Your task to perform on an android device: toggle data saver in the chrome app Image 0: 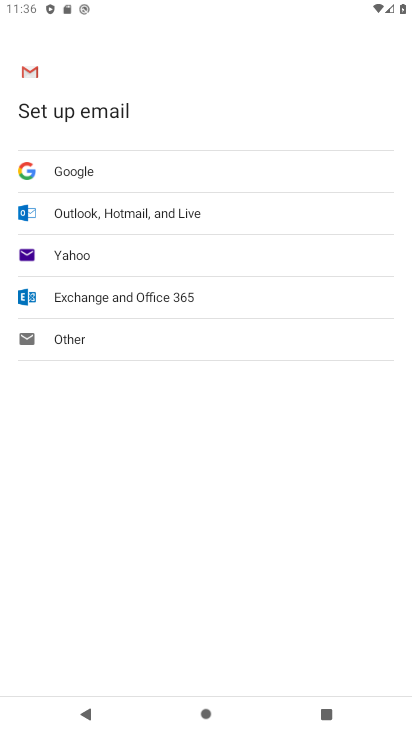
Step 0: press home button
Your task to perform on an android device: toggle data saver in the chrome app Image 1: 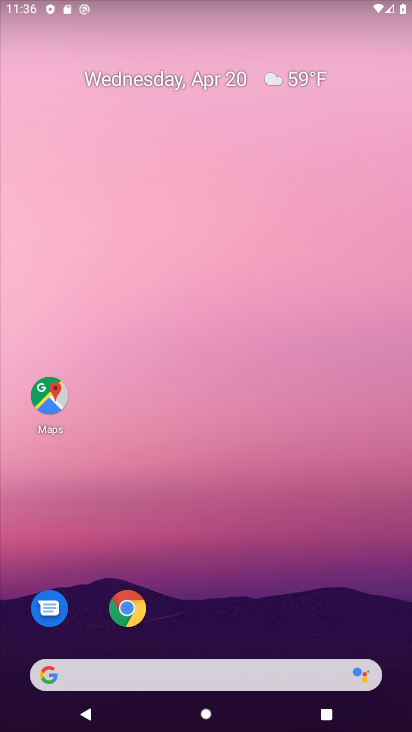
Step 1: click (279, 575)
Your task to perform on an android device: toggle data saver in the chrome app Image 2: 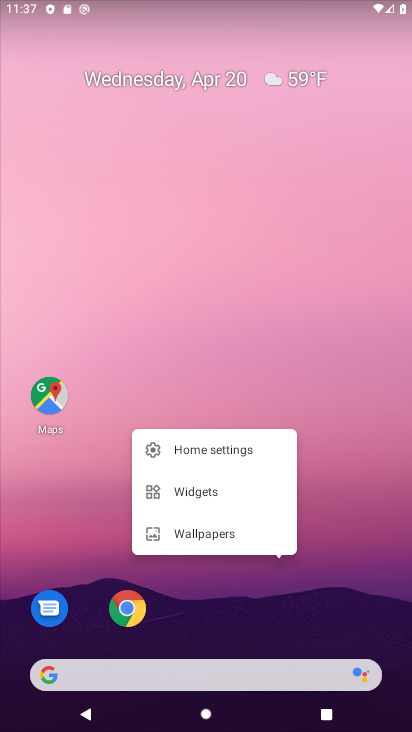
Step 2: click (131, 605)
Your task to perform on an android device: toggle data saver in the chrome app Image 3: 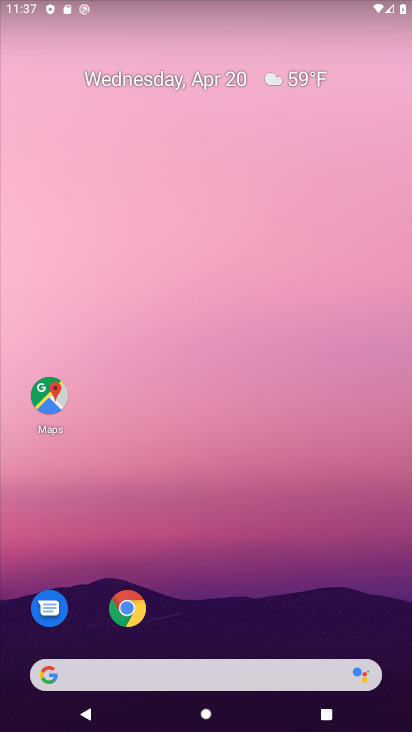
Step 3: click (127, 610)
Your task to perform on an android device: toggle data saver in the chrome app Image 4: 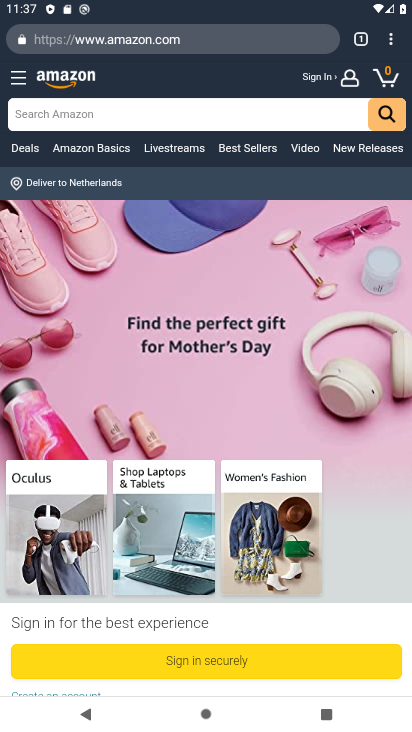
Step 4: click (386, 40)
Your task to perform on an android device: toggle data saver in the chrome app Image 5: 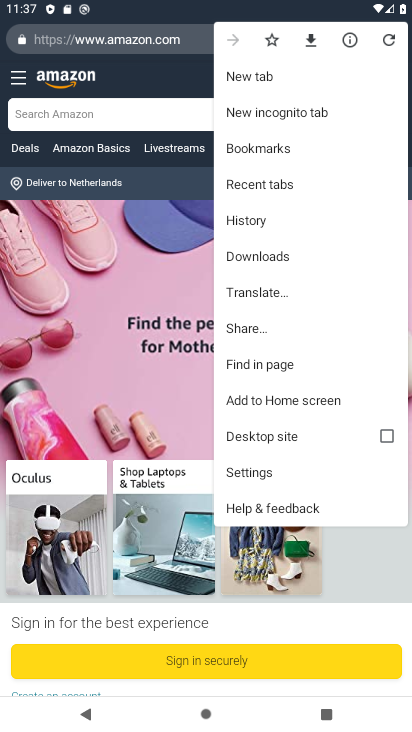
Step 5: click (266, 467)
Your task to perform on an android device: toggle data saver in the chrome app Image 6: 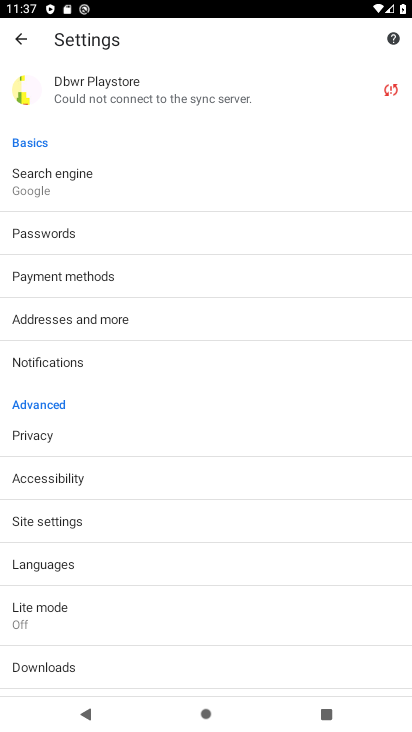
Step 6: click (88, 606)
Your task to perform on an android device: toggle data saver in the chrome app Image 7: 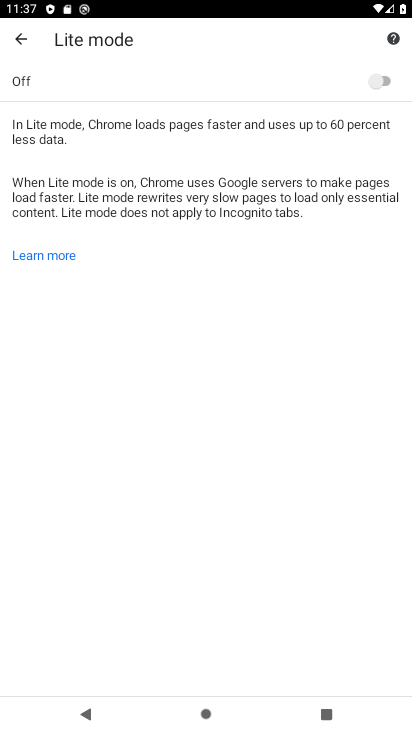
Step 7: click (379, 72)
Your task to perform on an android device: toggle data saver in the chrome app Image 8: 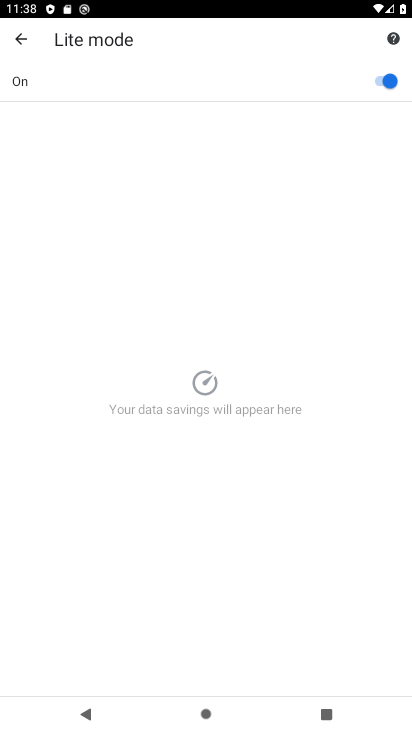
Step 8: task complete